Your task to perform on an android device: set the stopwatch Image 0: 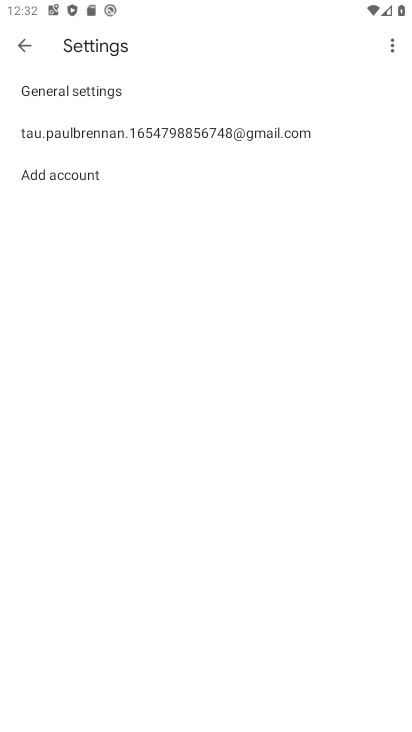
Step 0: press home button
Your task to perform on an android device: set the stopwatch Image 1: 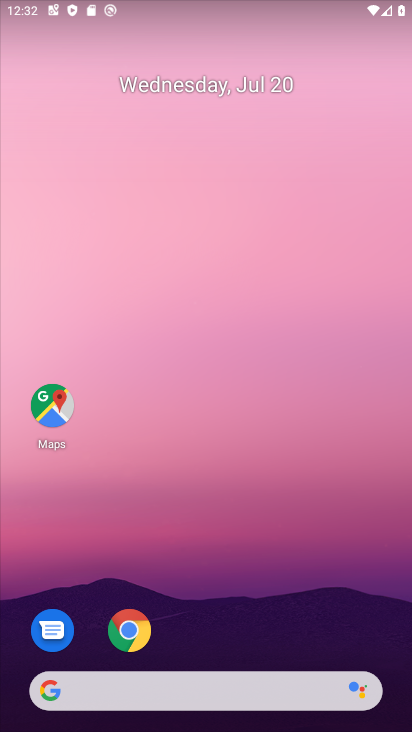
Step 1: drag from (283, 637) to (266, 27)
Your task to perform on an android device: set the stopwatch Image 2: 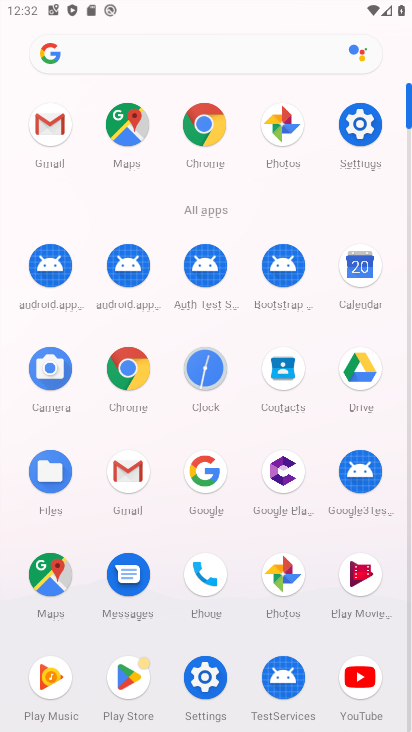
Step 2: click (211, 367)
Your task to perform on an android device: set the stopwatch Image 3: 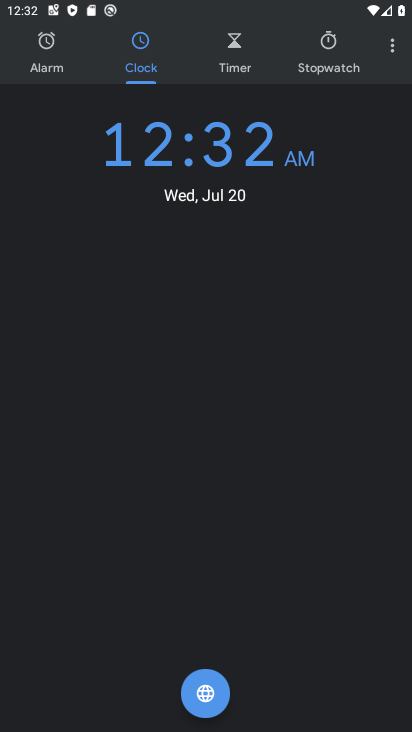
Step 3: click (347, 60)
Your task to perform on an android device: set the stopwatch Image 4: 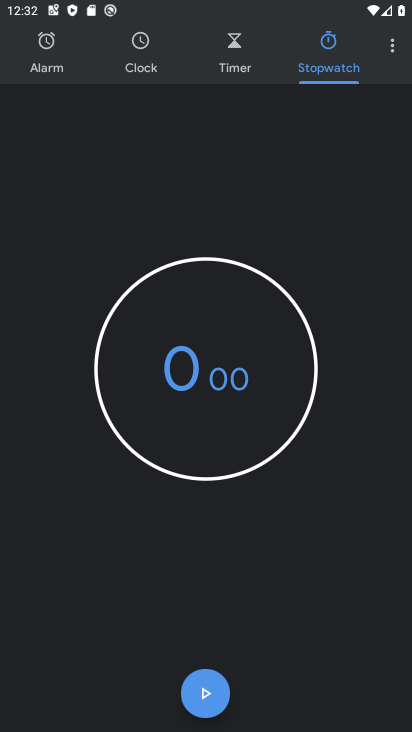
Step 4: click (192, 696)
Your task to perform on an android device: set the stopwatch Image 5: 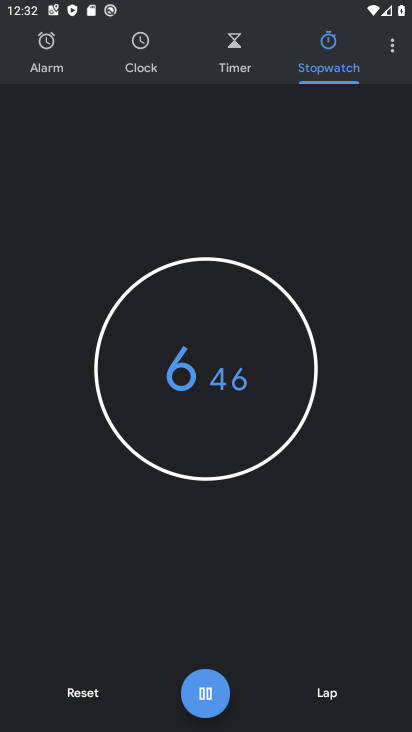
Step 5: task complete